Your task to perform on an android device: What's on the menu at McDonalds? Image 0: 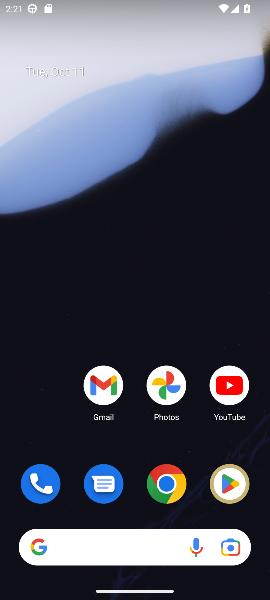
Step 0: click (94, 549)
Your task to perform on an android device: What's on the menu at McDonalds? Image 1: 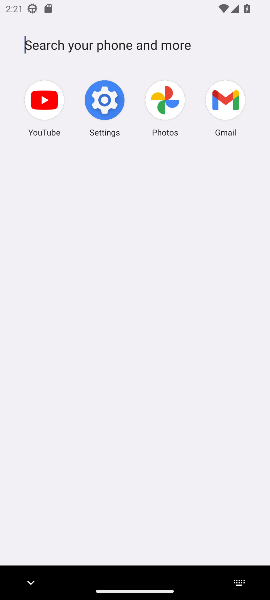
Step 1: press back button
Your task to perform on an android device: What's on the menu at McDonalds? Image 2: 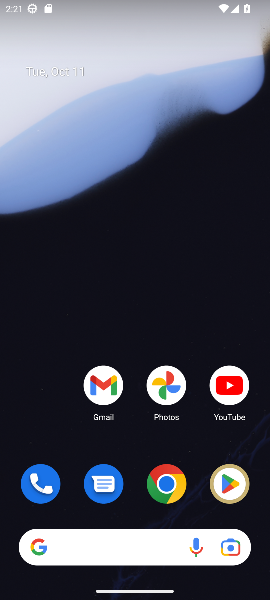
Step 2: drag from (59, 431) to (55, 66)
Your task to perform on an android device: What's on the menu at McDonalds? Image 3: 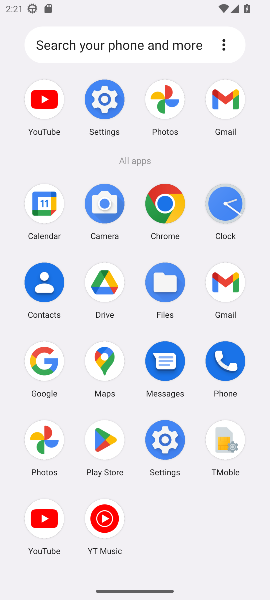
Step 3: click (30, 367)
Your task to perform on an android device: What's on the menu at McDonalds? Image 4: 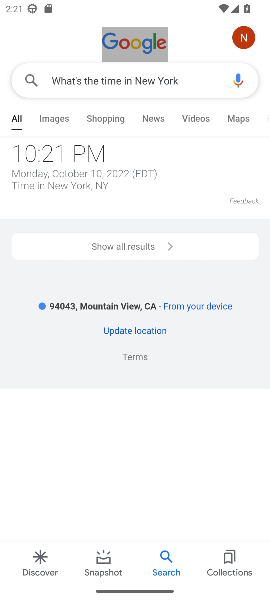
Step 4: click (194, 74)
Your task to perform on an android device: What's on the menu at McDonalds? Image 5: 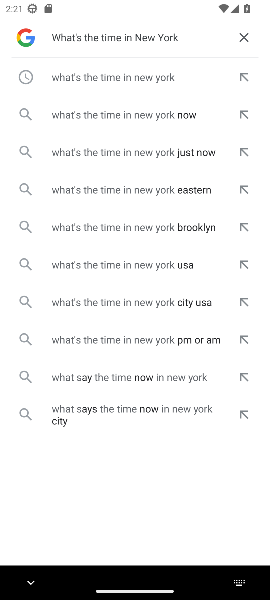
Step 5: click (239, 36)
Your task to perform on an android device: What's on the menu at McDonalds? Image 6: 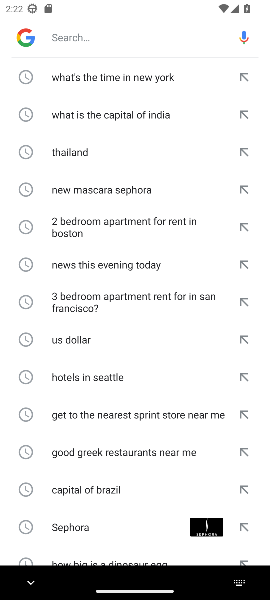
Step 6: type "What's on the menu at McDonalds"
Your task to perform on an android device: What's on the menu at McDonalds? Image 7: 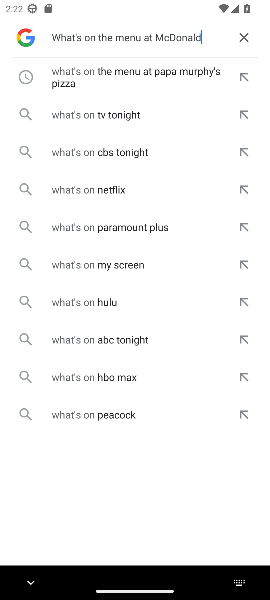
Step 7: press enter
Your task to perform on an android device: What's on the menu at McDonalds? Image 8: 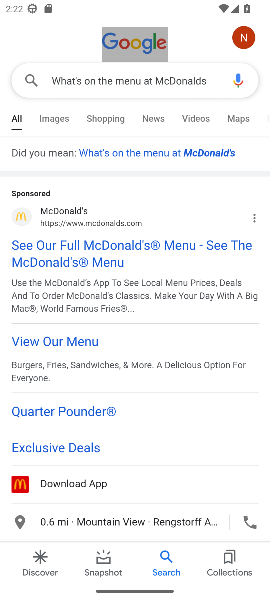
Step 8: click (59, 339)
Your task to perform on an android device: What's on the menu at McDonalds? Image 9: 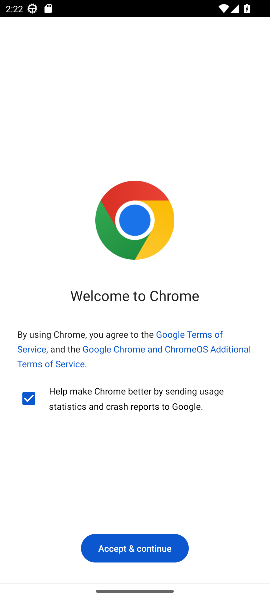
Step 9: click (137, 550)
Your task to perform on an android device: What's on the menu at McDonalds? Image 10: 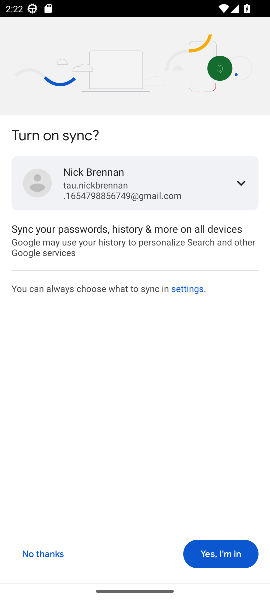
Step 10: click (218, 558)
Your task to perform on an android device: What's on the menu at McDonalds? Image 11: 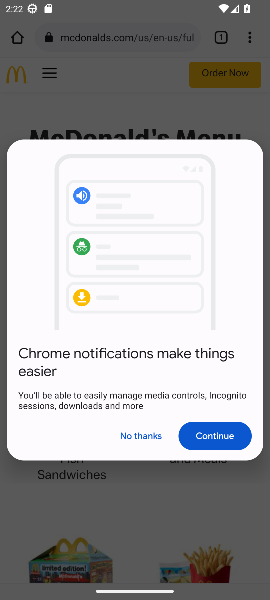
Step 11: click (211, 439)
Your task to perform on an android device: What's on the menu at McDonalds? Image 12: 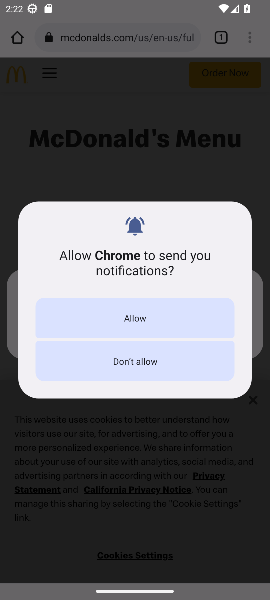
Step 12: click (144, 319)
Your task to perform on an android device: What's on the menu at McDonalds? Image 13: 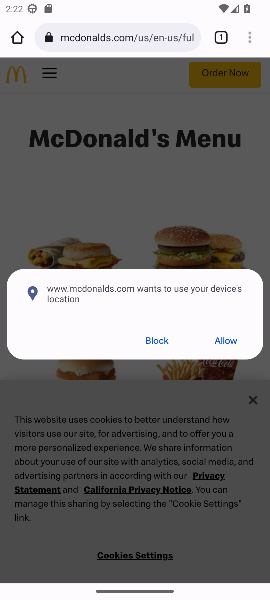
Step 13: click (162, 340)
Your task to perform on an android device: What's on the menu at McDonalds? Image 14: 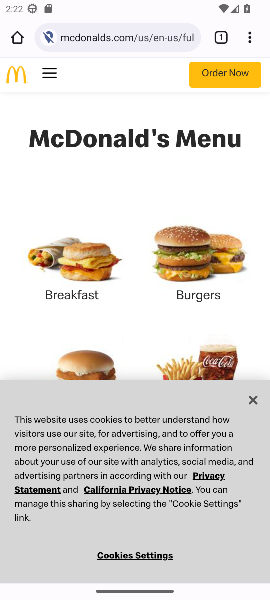
Step 14: click (254, 398)
Your task to perform on an android device: What's on the menu at McDonalds? Image 15: 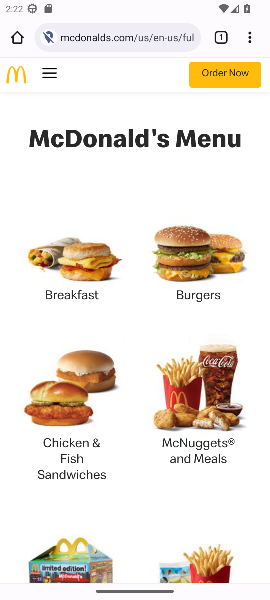
Step 15: task complete